Your task to perform on an android device: turn on the 24-hour format for clock Image 0: 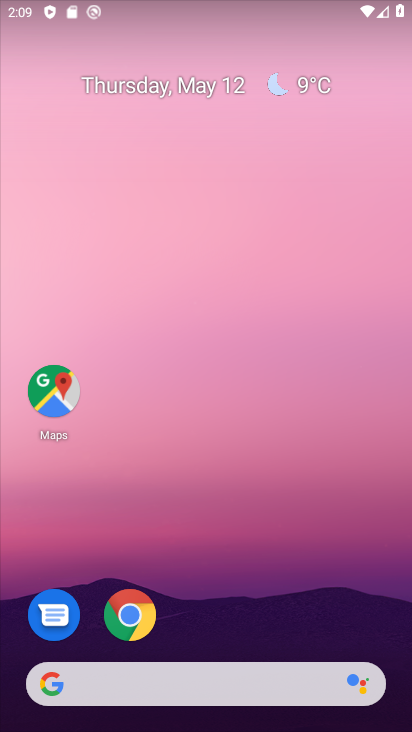
Step 0: drag from (235, 678) to (282, 18)
Your task to perform on an android device: turn on the 24-hour format for clock Image 1: 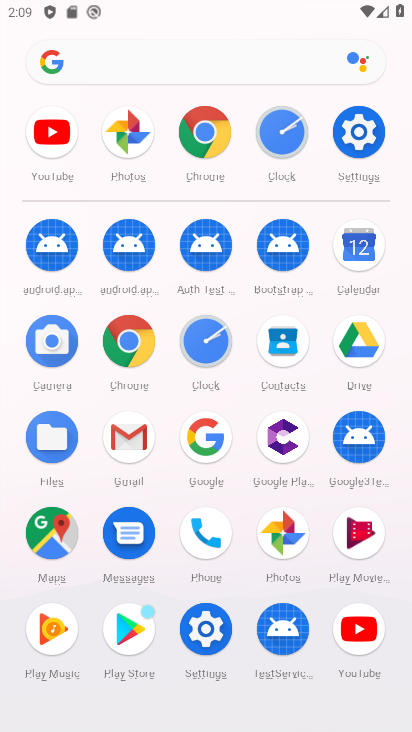
Step 1: click (205, 349)
Your task to perform on an android device: turn on the 24-hour format for clock Image 2: 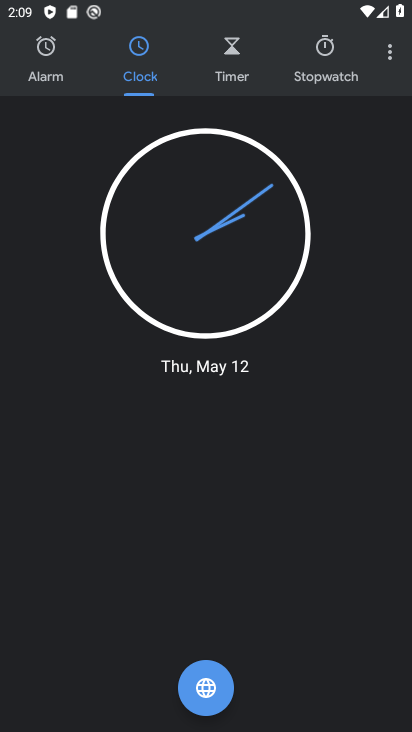
Step 2: press home button
Your task to perform on an android device: turn on the 24-hour format for clock Image 3: 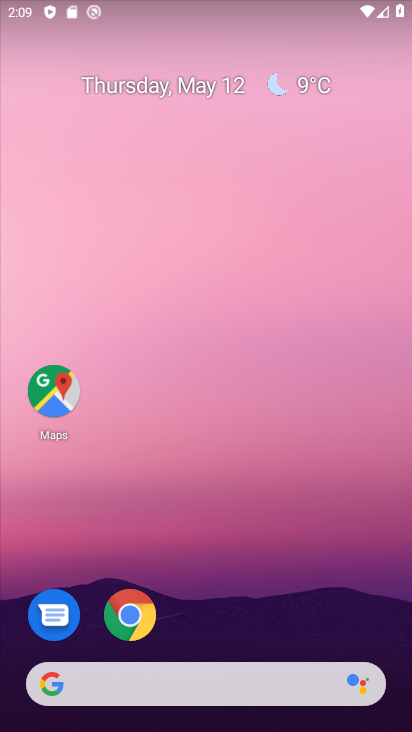
Step 3: drag from (232, 653) to (219, 3)
Your task to perform on an android device: turn on the 24-hour format for clock Image 4: 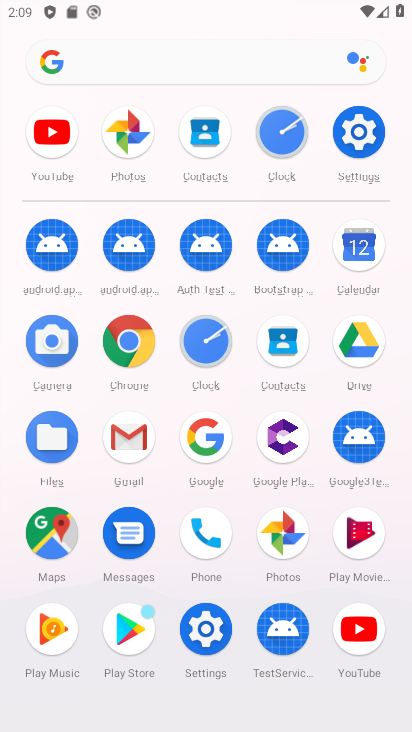
Step 4: click (196, 627)
Your task to perform on an android device: turn on the 24-hour format for clock Image 5: 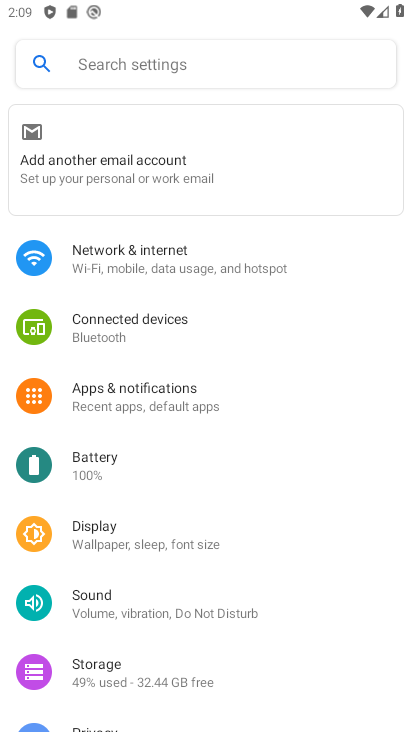
Step 5: drag from (151, 621) to (227, 28)
Your task to perform on an android device: turn on the 24-hour format for clock Image 6: 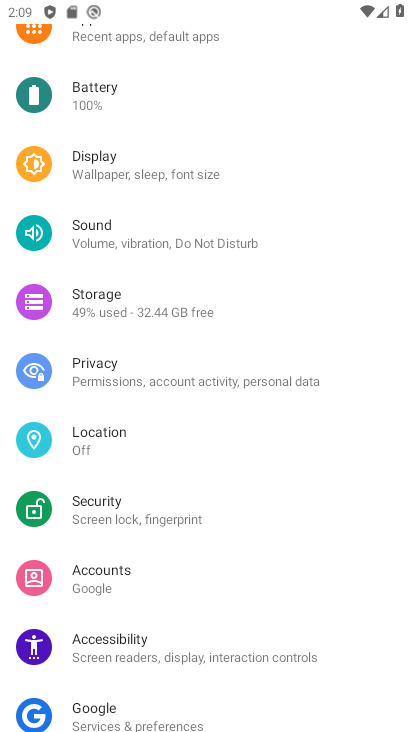
Step 6: drag from (169, 517) to (221, 43)
Your task to perform on an android device: turn on the 24-hour format for clock Image 7: 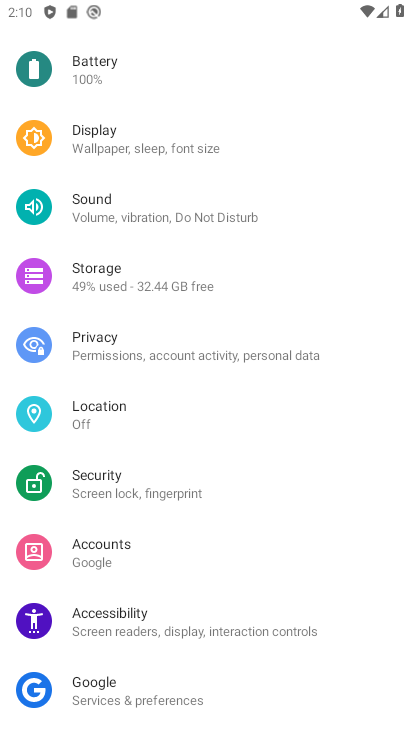
Step 7: drag from (237, 565) to (252, 104)
Your task to perform on an android device: turn on the 24-hour format for clock Image 8: 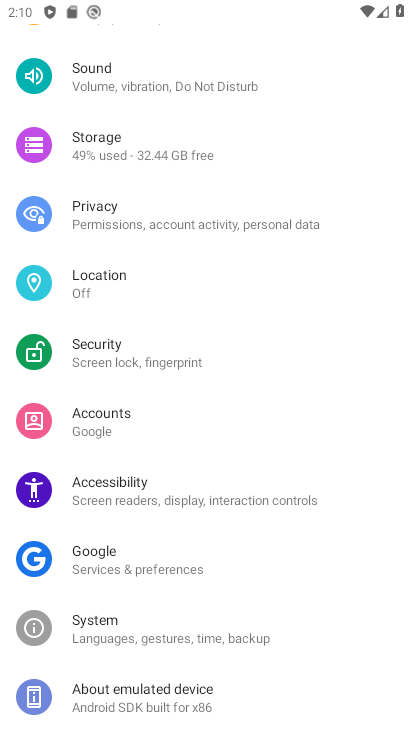
Step 8: click (147, 634)
Your task to perform on an android device: turn on the 24-hour format for clock Image 9: 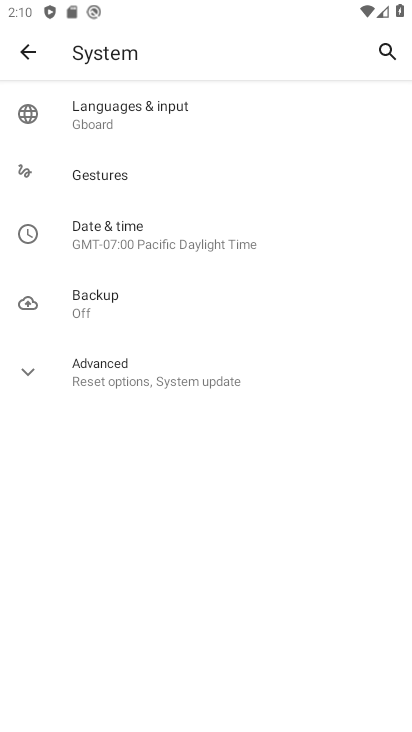
Step 9: click (162, 239)
Your task to perform on an android device: turn on the 24-hour format for clock Image 10: 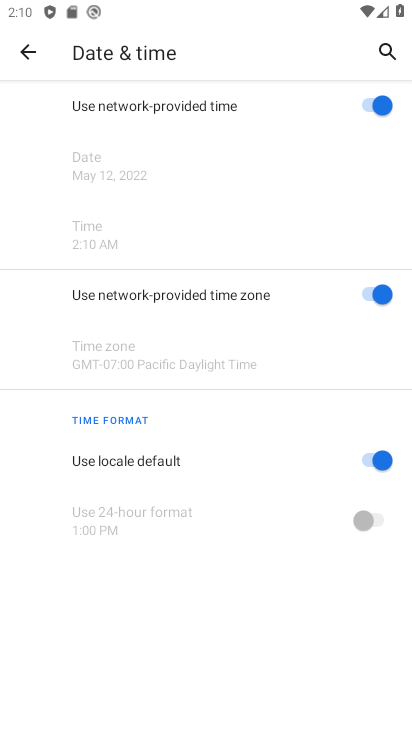
Step 10: click (378, 456)
Your task to perform on an android device: turn on the 24-hour format for clock Image 11: 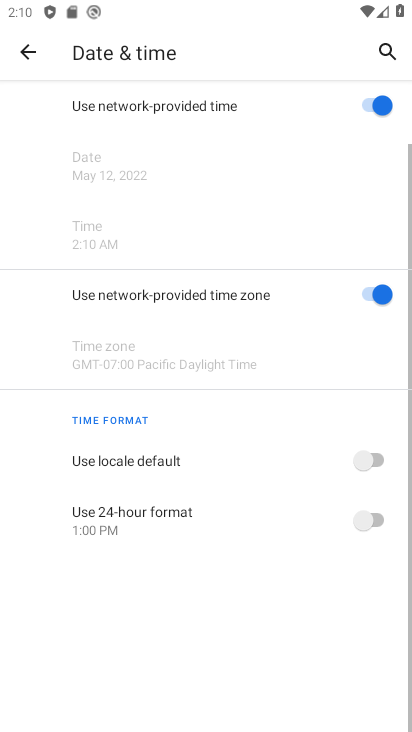
Step 11: click (372, 519)
Your task to perform on an android device: turn on the 24-hour format for clock Image 12: 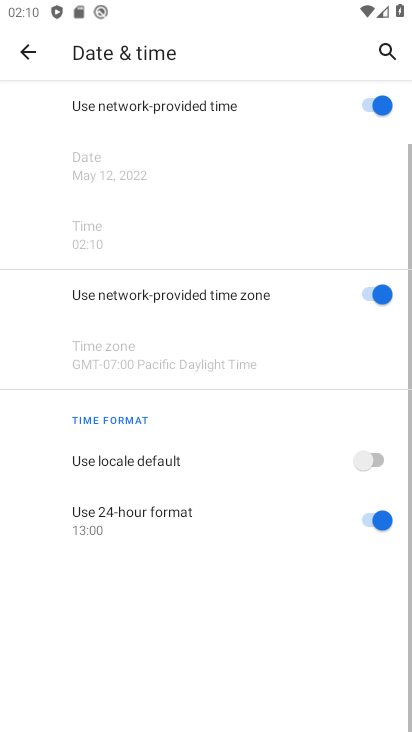
Step 12: task complete